Your task to perform on an android device: install app "Spotify" Image 0: 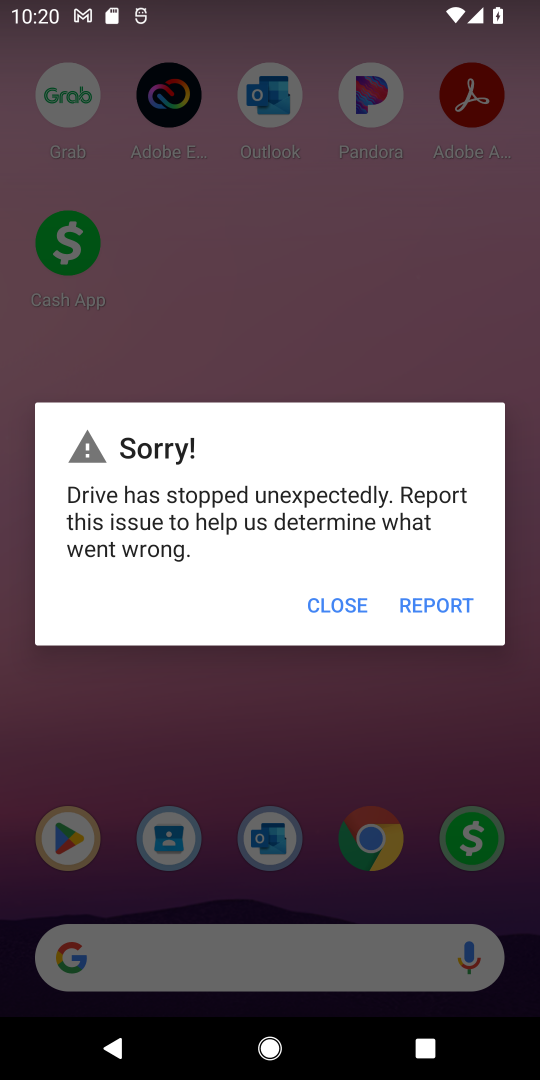
Step 0: click (337, 605)
Your task to perform on an android device: install app "Spotify" Image 1: 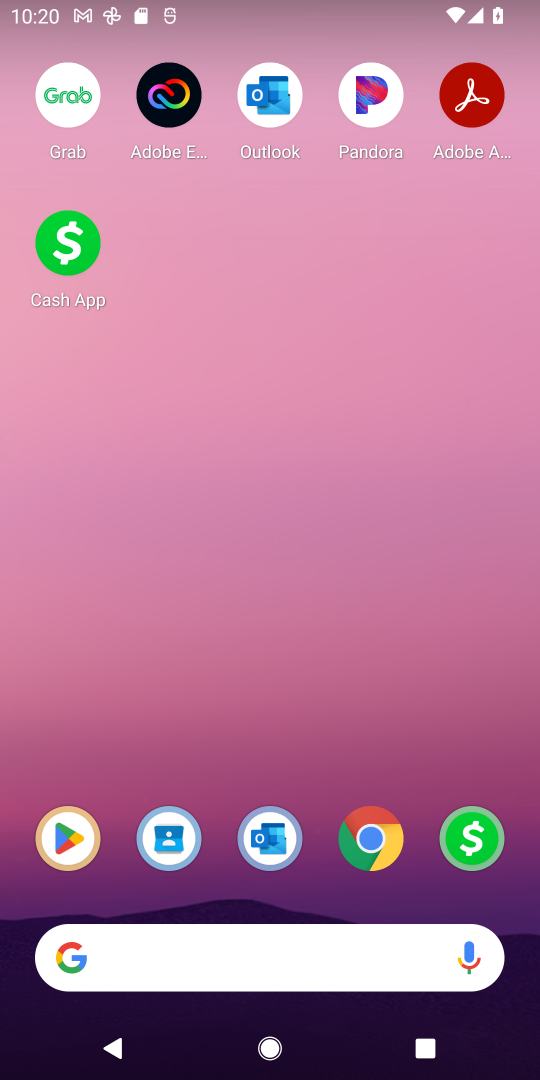
Step 1: click (73, 831)
Your task to perform on an android device: install app "Spotify" Image 2: 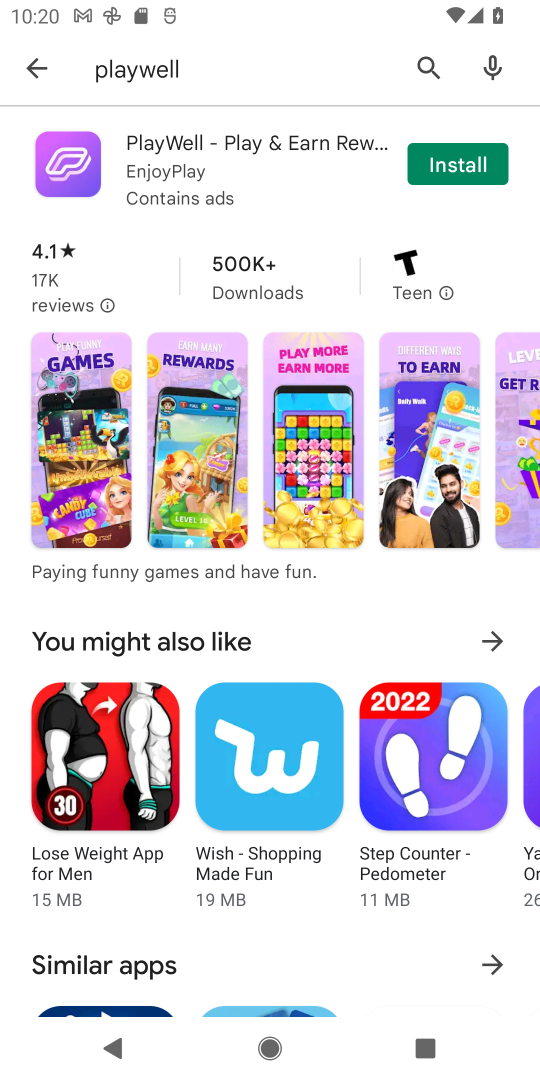
Step 2: click (217, 65)
Your task to perform on an android device: install app "Spotify" Image 3: 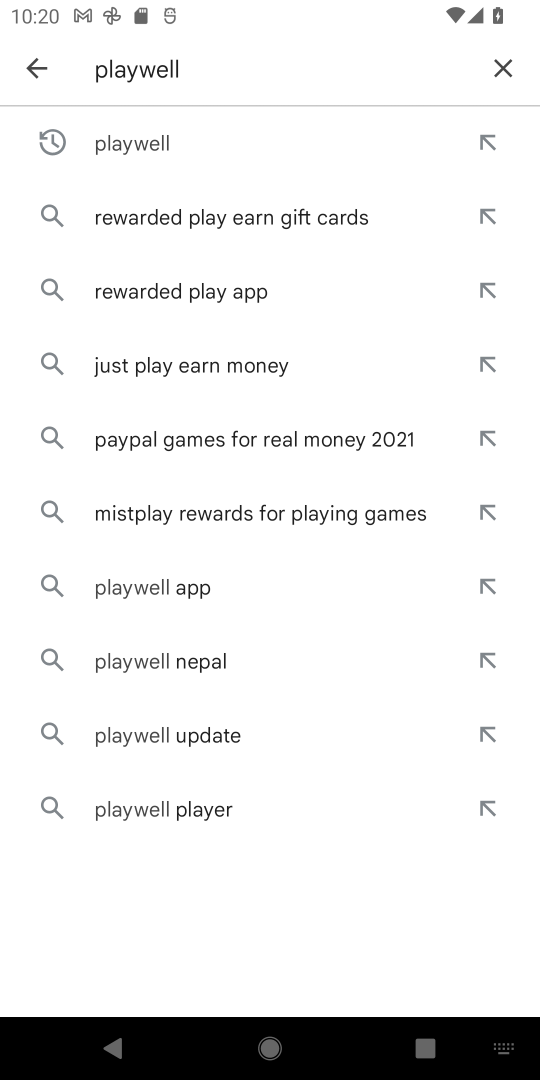
Step 3: click (507, 56)
Your task to perform on an android device: install app "Spotify" Image 4: 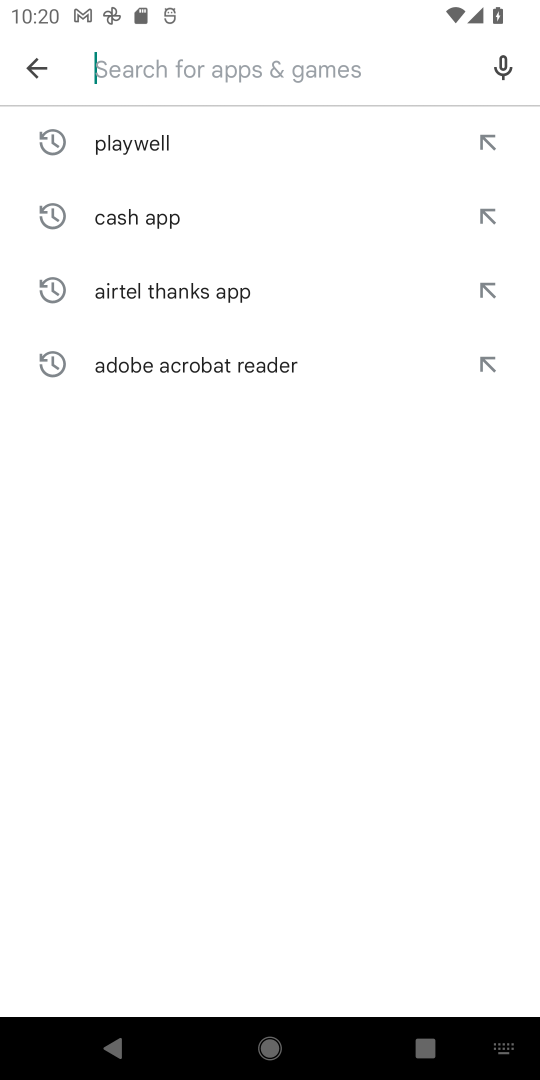
Step 4: type "spotify"
Your task to perform on an android device: install app "Spotify" Image 5: 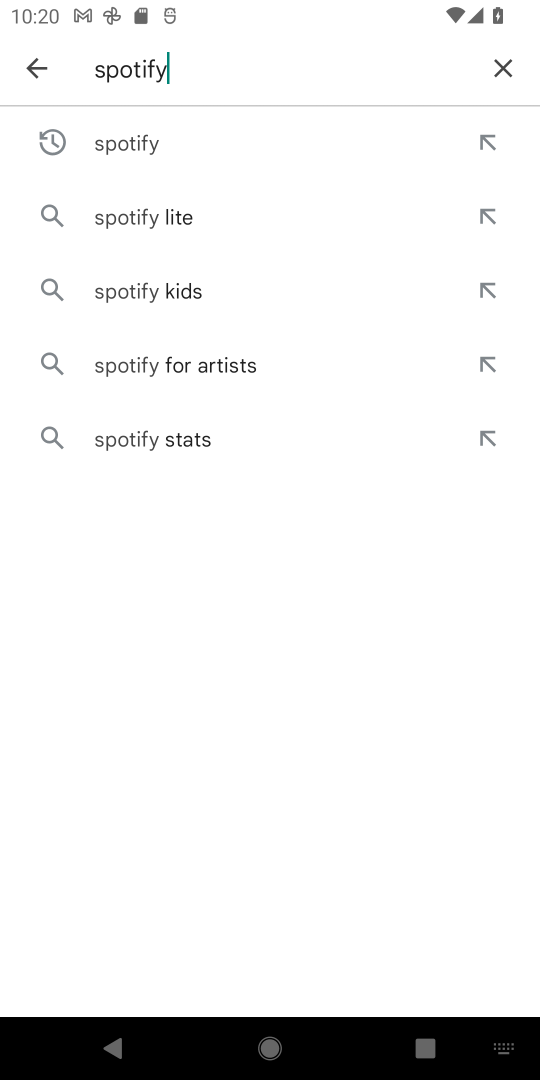
Step 5: click (170, 145)
Your task to perform on an android device: install app "Spotify" Image 6: 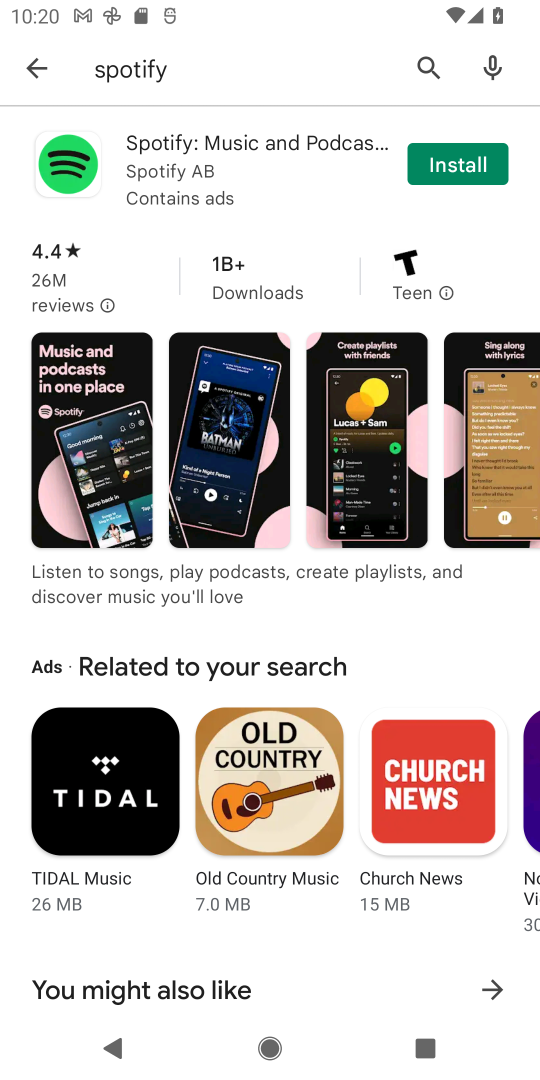
Step 6: click (487, 174)
Your task to perform on an android device: install app "Spotify" Image 7: 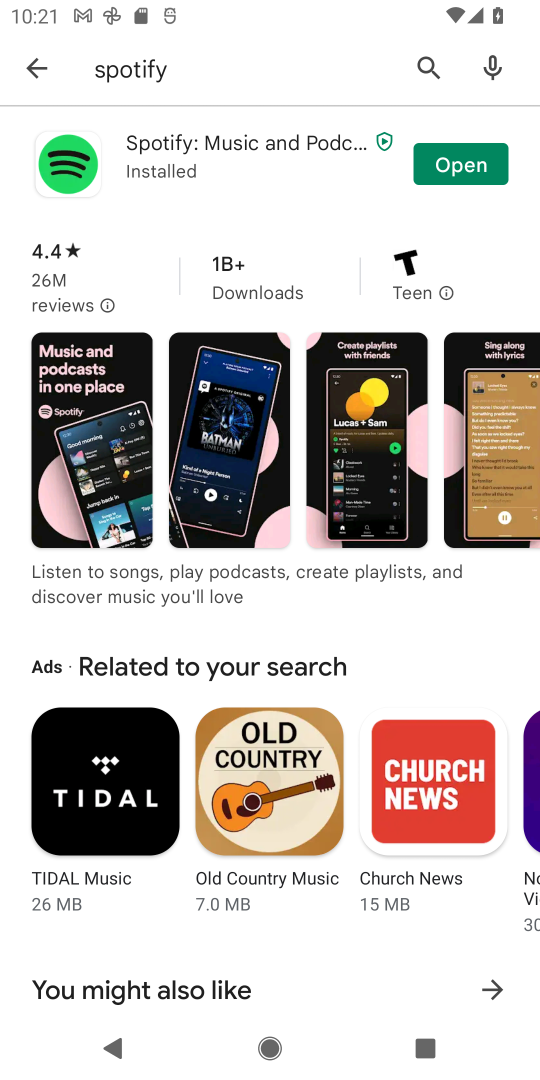
Step 7: task complete